Your task to perform on an android device: change the clock display to digital Image 0: 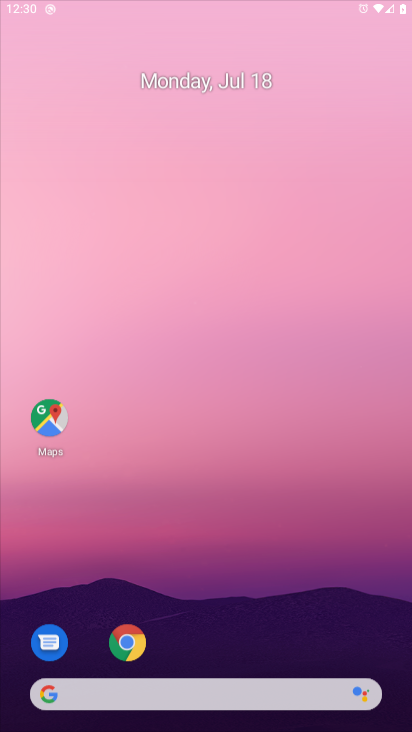
Step 0: press home button
Your task to perform on an android device: change the clock display to digital Image 1: 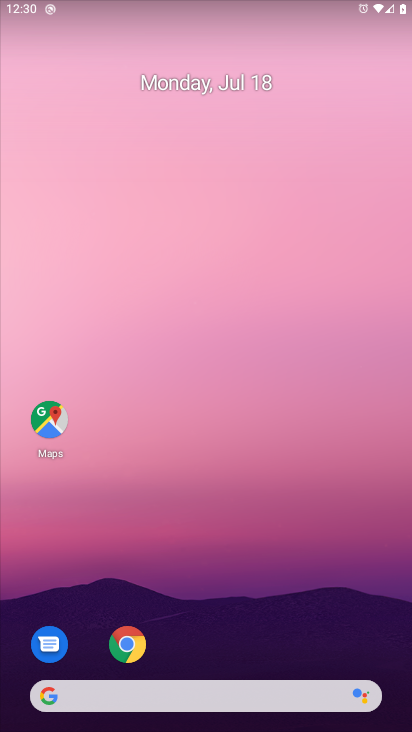
Step 1: drag from (280, 643) to (329, 91)
Your task to perform on an android device: change the clock display to digital Image 2: 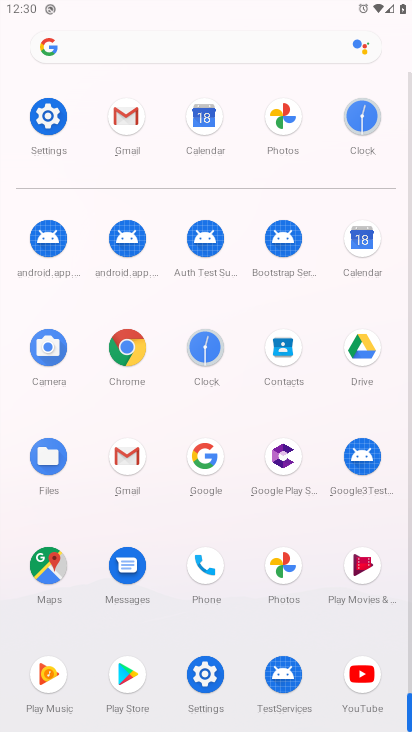
Step 2: click (210, 340)
Your task to perform on an android device: change the clock display to digital Image 3: 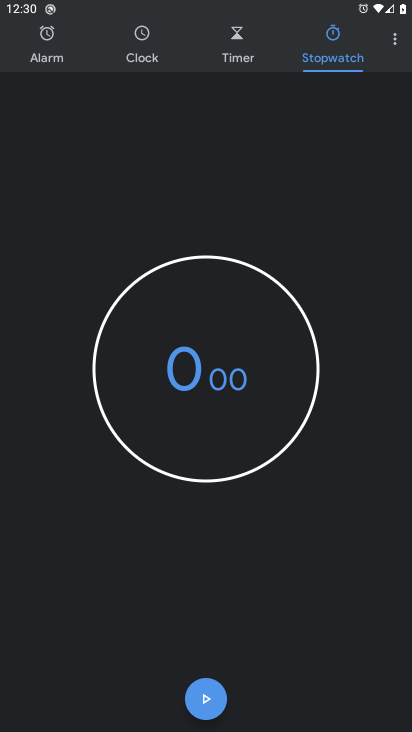
Step 3: click (395, 38)
Your task to perform on an android device: change the clock display to digital Image 4: 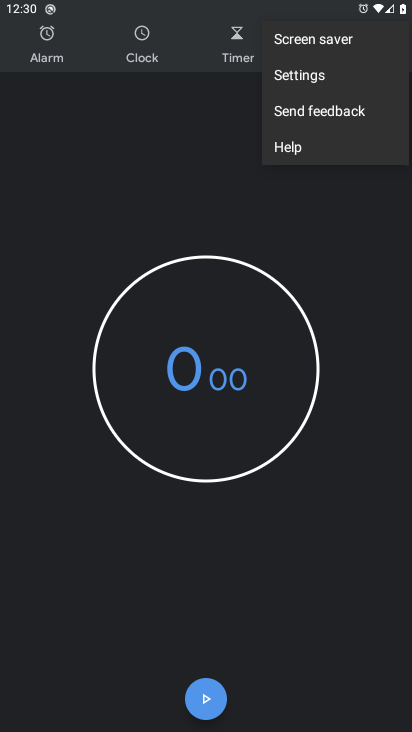
Step 4: click (301, 71)
Your task to perform on an android device: change the clock display to digital Image 5: 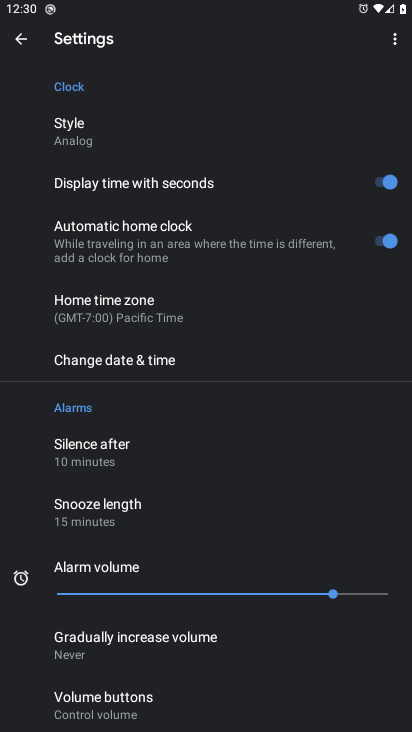
Step 5: click (92, 129)
Your task to perform on an android device: change the clock display to digital Image 6: 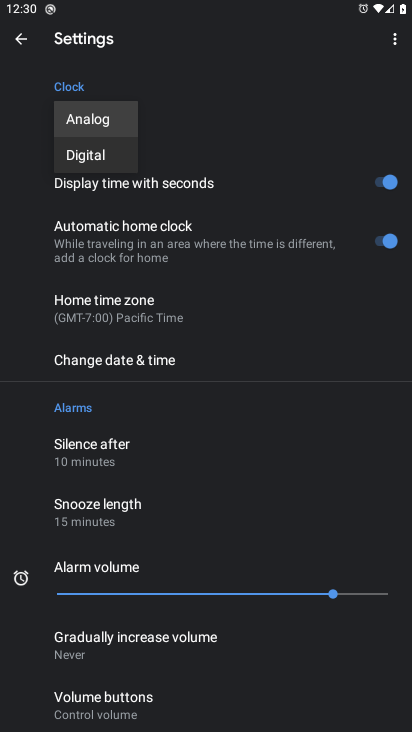
Step 6: click (87, 150)
Your task to perform on an android device: change the clock display to digital Image 7: 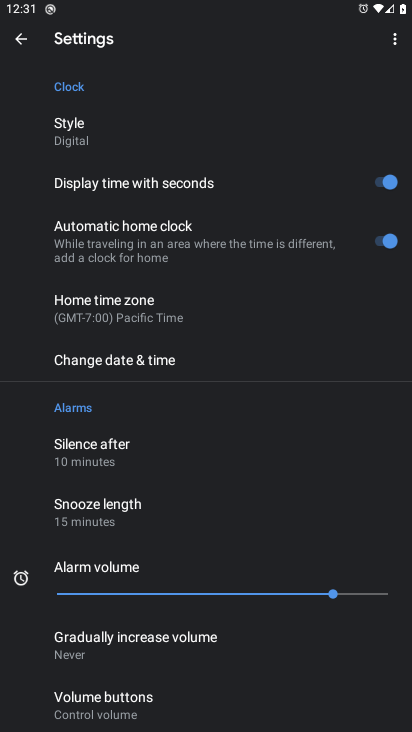
Step 7: task complete